Your task to perform on an android device: snooze an email in the gmail app Image 0: 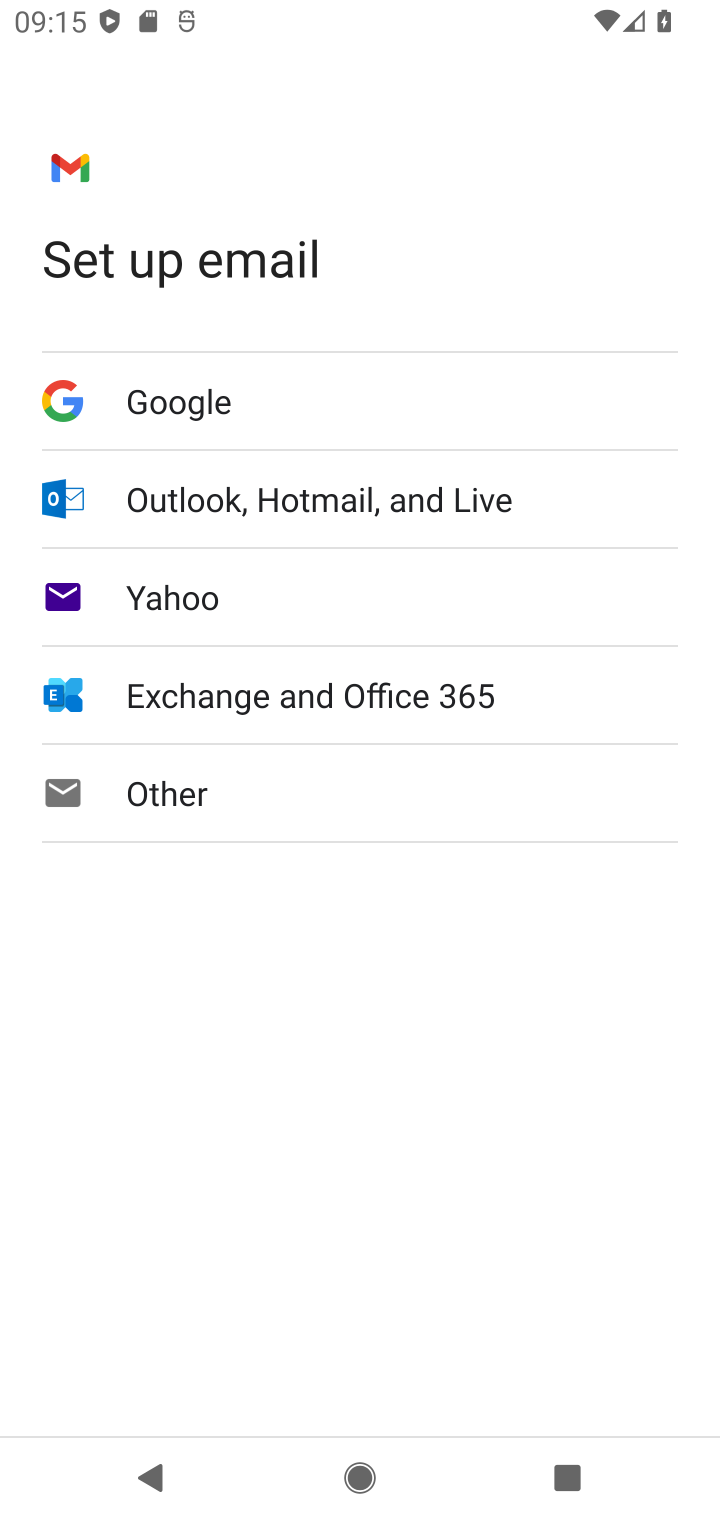
Step 0: press back button
Your task to perform on an android device: snooze an email in the gmail app Image 1: 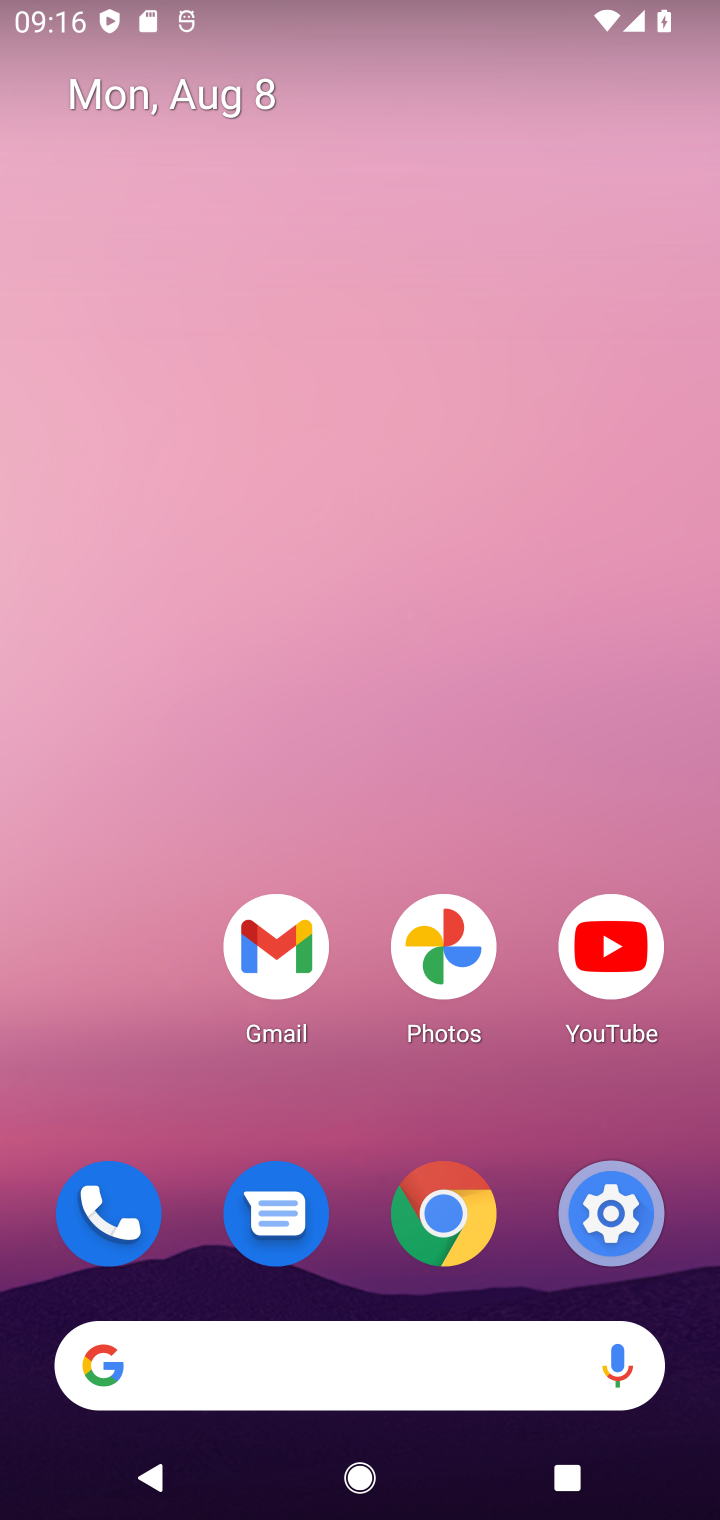
Step 1: drag from (395, 841) to (504, 13)
Your task to perform on an android device: snooze an email in the gmail app Image 2: 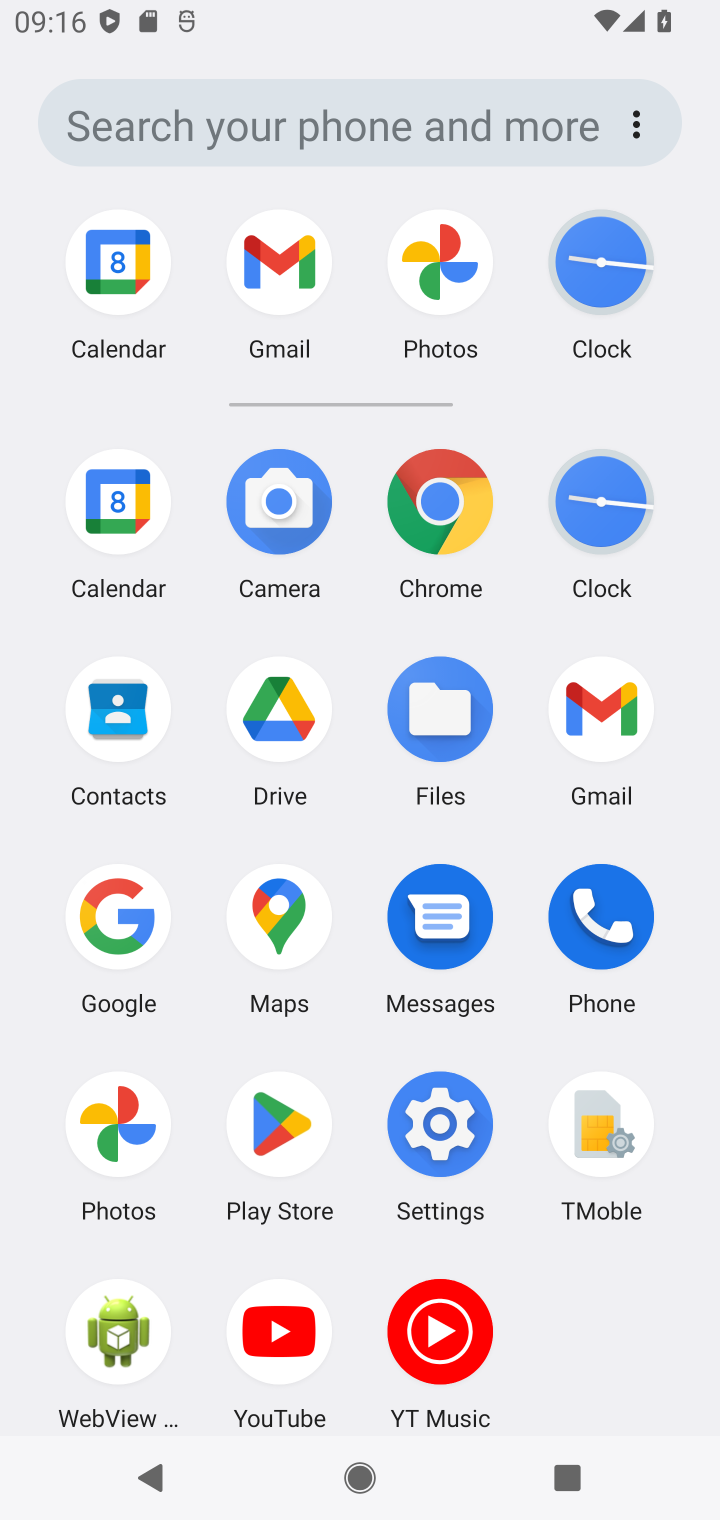
Step 2: click (607, 752)
Your task to perform on an android device: snooze an email in the gmail app Image 3: 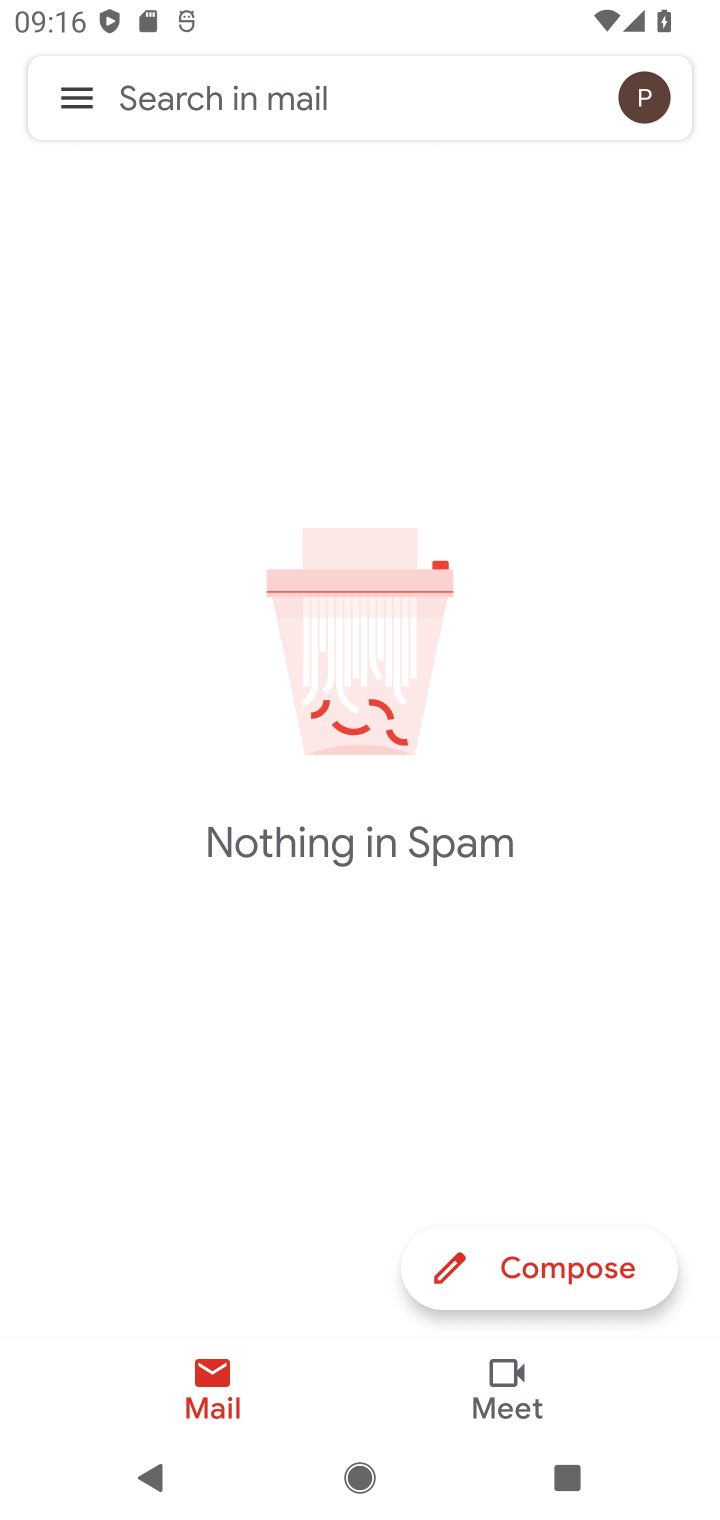
Step 3: click (66, 124)
Your task to perform on an android device: snooze an email in the gmail app Image 4: 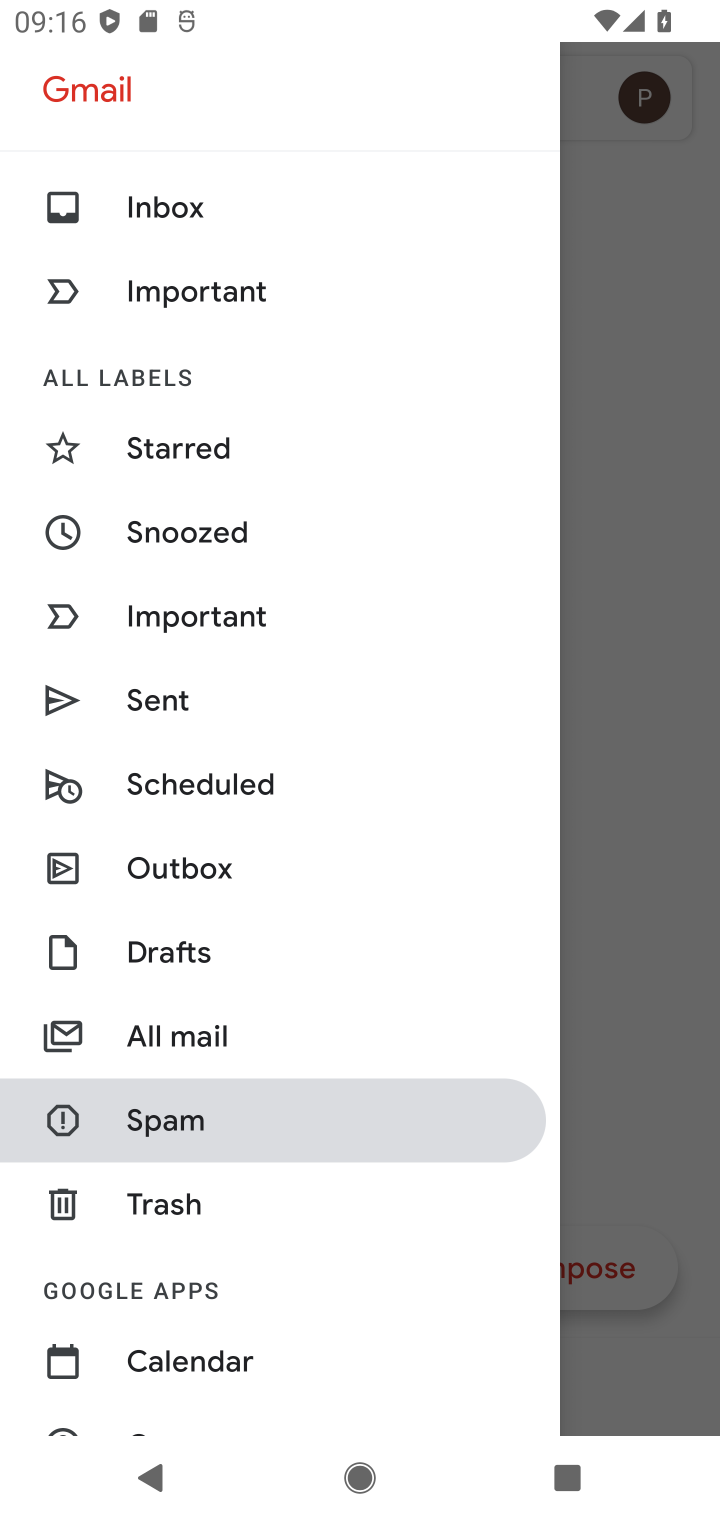
Step 4: click (269, 529)
Your task to perform on an android device: snooze an email in the gmail app Image 5: 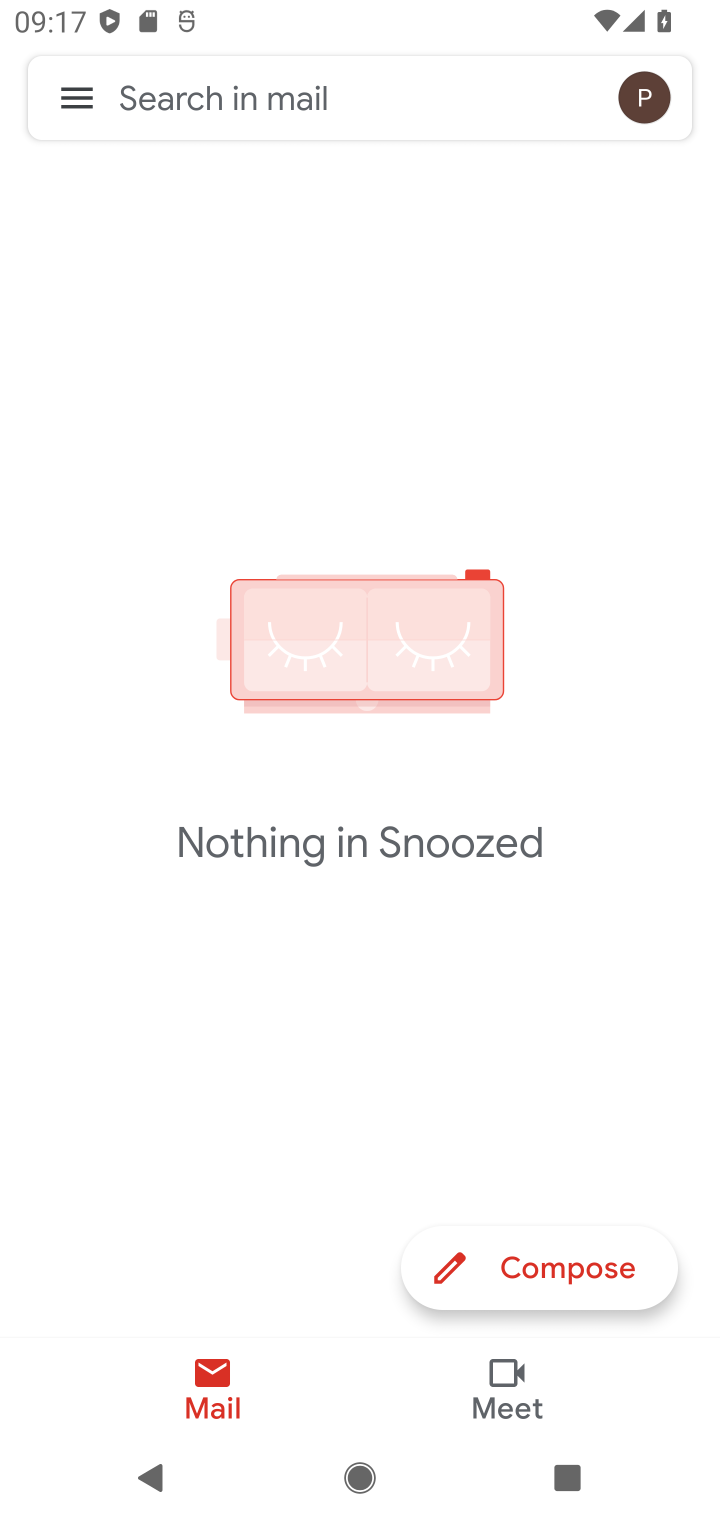
Step 5: task complete